Your task to perform on an android device: turn on data saver in the chrome app Image 0: 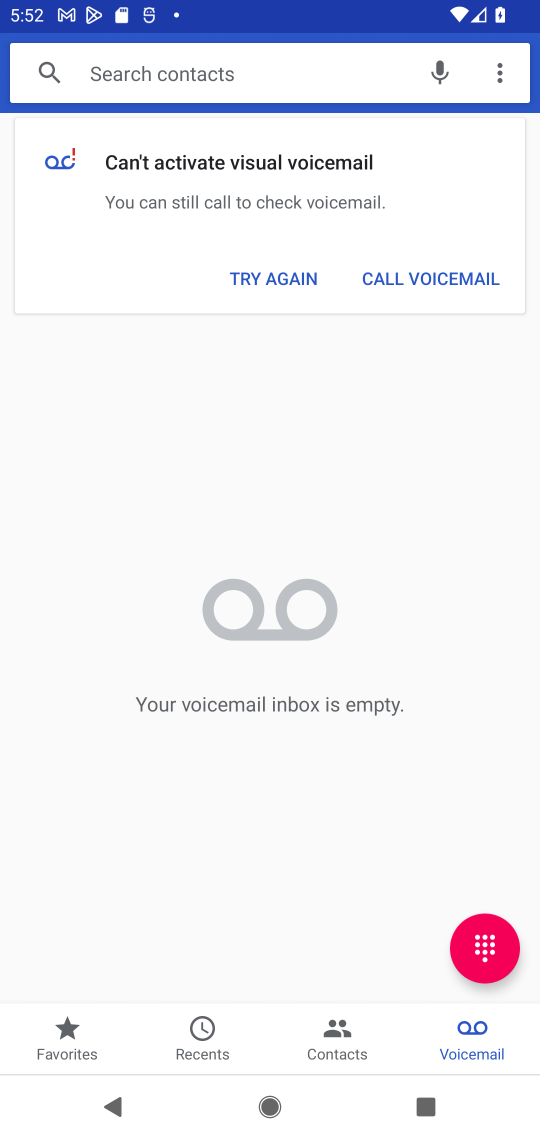
Step 0: task complete